Your task to perform on an android device: turn pop-ups off in chrome Image 0: 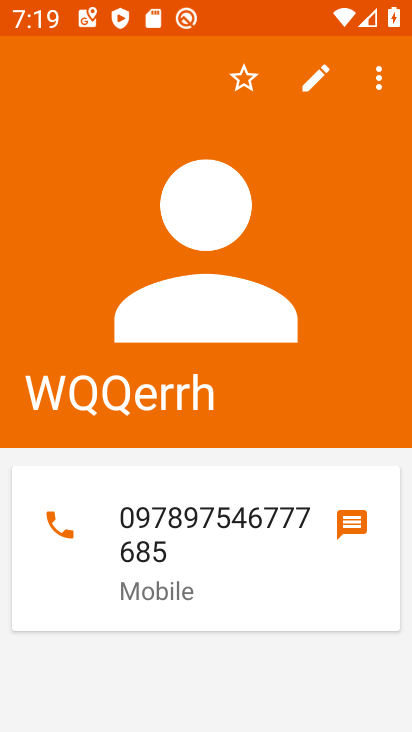
Step 0: press home button
Your task to perform on an android device: turn pop-ups off in chrome Image 1: 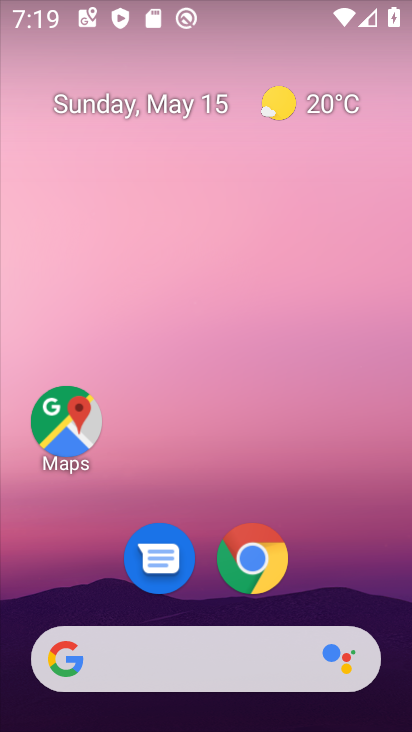
Step 1: click (253, 558)
Your task to perform on an android device: turn pop-ups off in chrome Image 2: 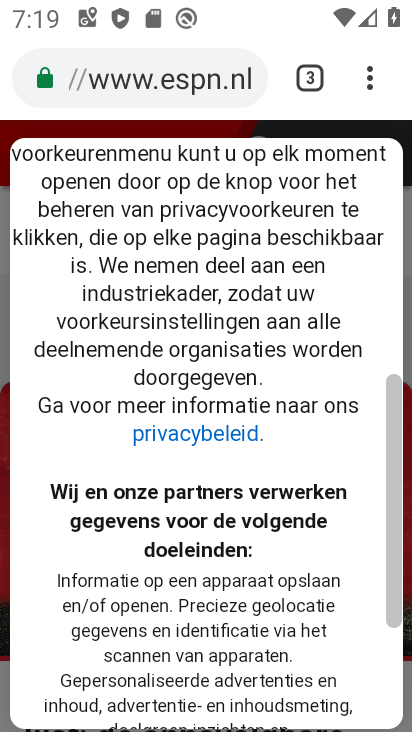
Step 2: click (371, 74)
Your task to perform on an android device: turn pop-ups off in chrome Image 3: 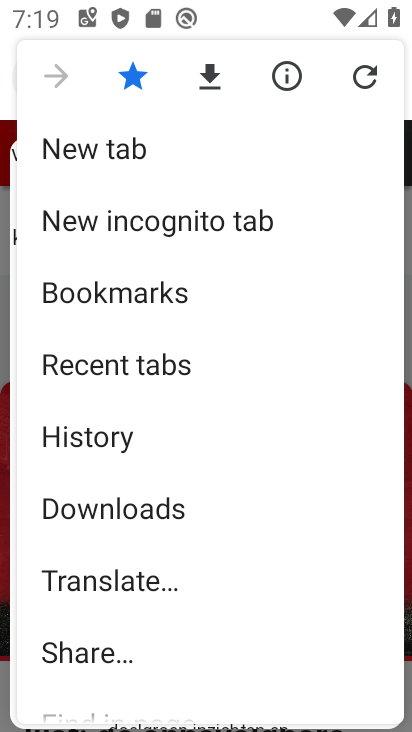
Step 3: drag from (284, 543) to (229, 282)
Your task to perform on an android device: turn pop-ups off in chrome Image 4: 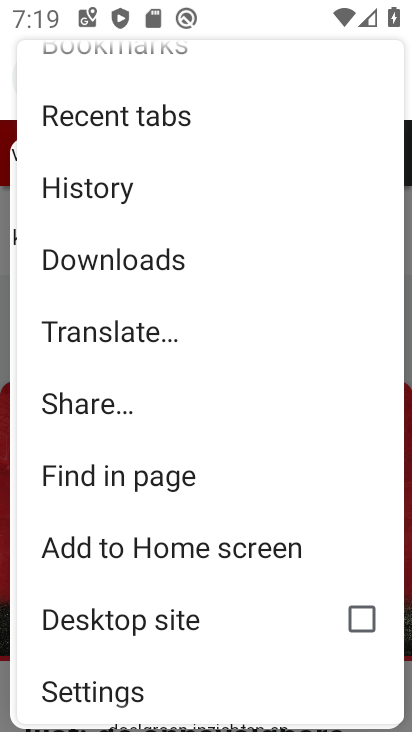
Step 4: click (92, 687)
Your task to perform on an android device: turn pop-ups off in chrome Image 5: 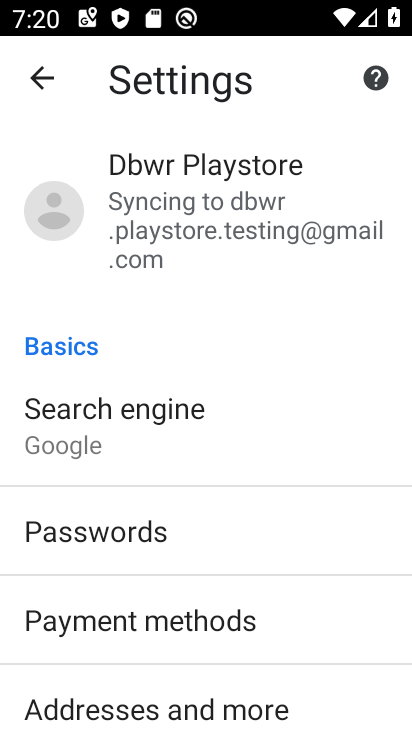
Step 5: drag from (281, 580) to (220, 198)
Your task to perform on an android device: turn pop-ups off in chrome Image 6: 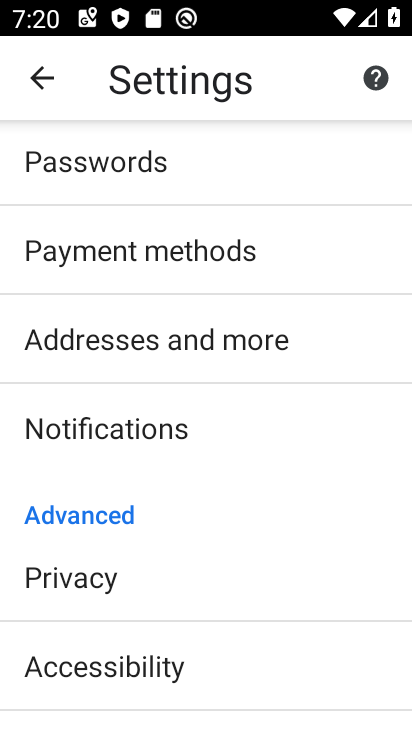
Step 6: drag from (237, 504) to (218, 172)
Your task to perform on an android device: turn pop-ups off in chrome Image 7: 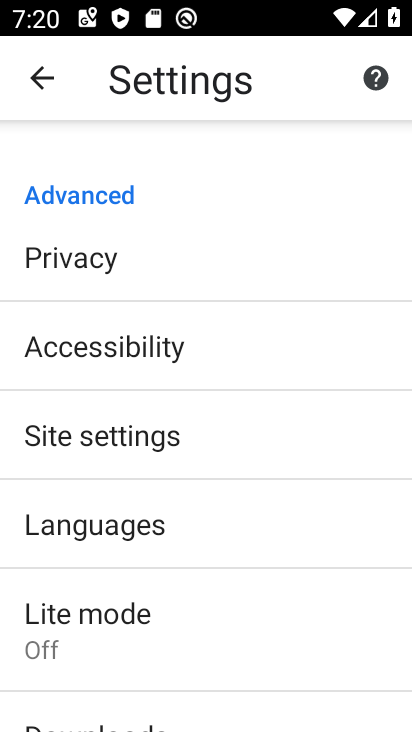
Step 7: click (116, 432)
Your task to perform on an android device: turn pop-ups off in chrome Image 8: 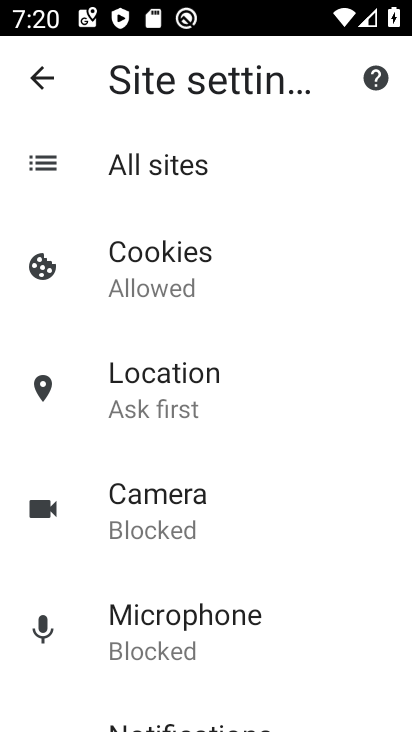
Step 8: drag from (277, 554) to (258, 185)
Your task to perform on an android device: turn pop-ups off in chrome Image 9: 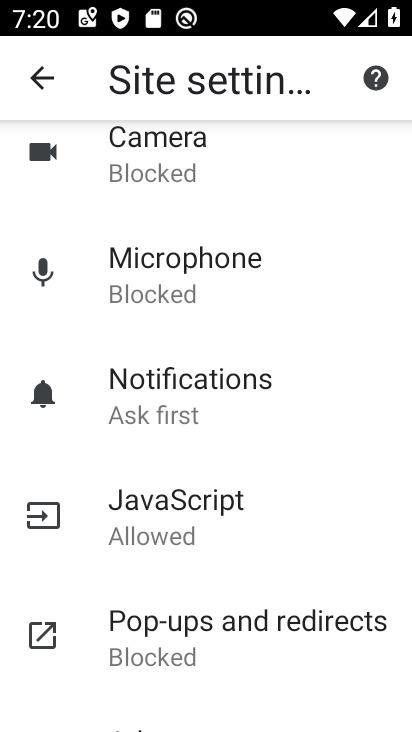
Step 9: drag from (248, 555) to (208, 216)
Your task to perform on an android device: turn pop-ups off in chrome Image 10: 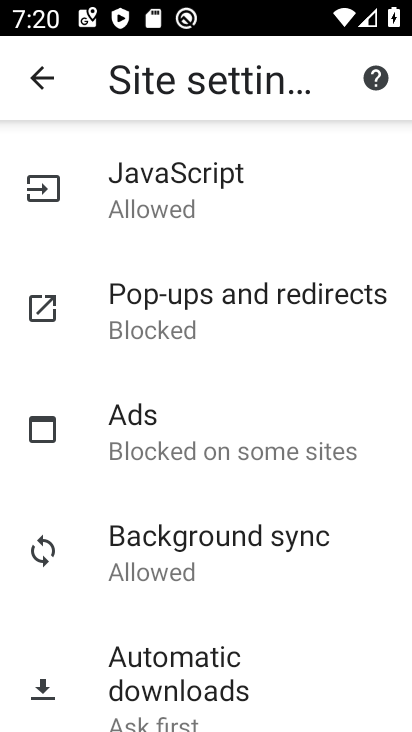
Step 10: click (183, 298)
Your task to perform on an android device: turn pop-ups off in chrome Image 11: 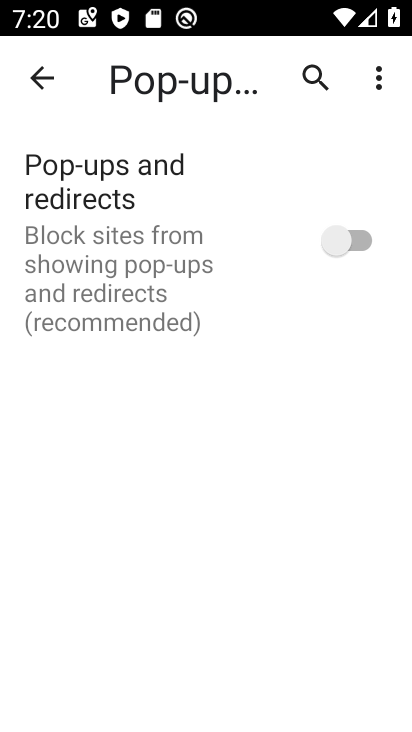
Step 11: task complete